Your task to perform on an android device: choose inbox layout in the gmail app Image 0: 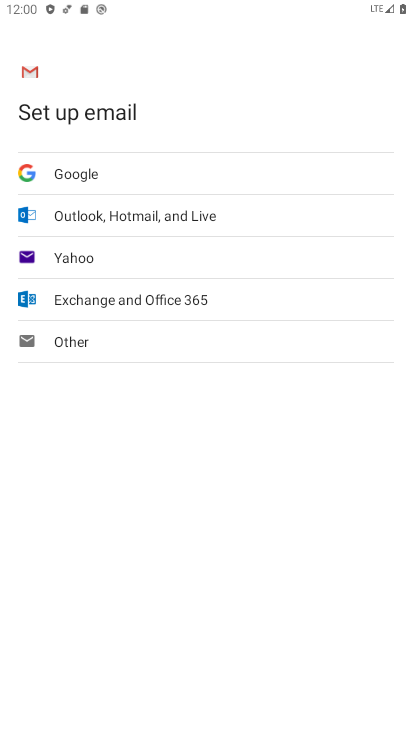
Step 0: press back button
Your task to perform on an android device: choose inbox layout in the gmail app Image 1: 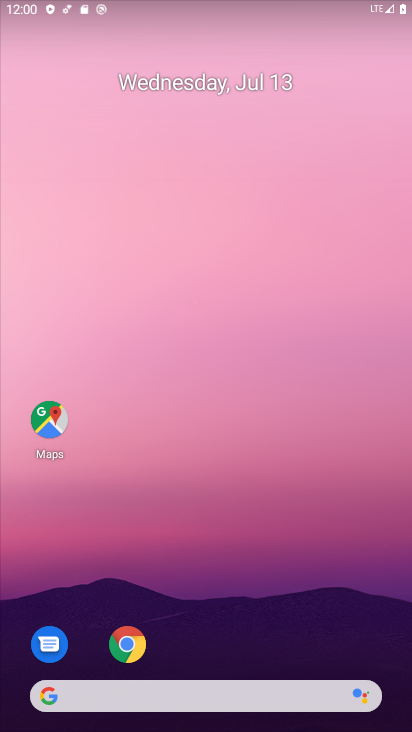
Step 1: drag from (218, 647) to (269, 123)
Your task to perform on an android device: choose inbox layout in the gmail app Image 2: 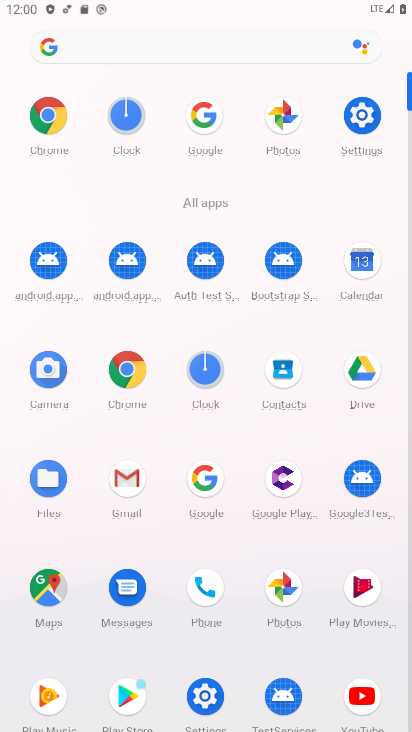
Step 2: click (130, 468)
Your task to perform on an android device: choose inbox layout in the gmail app Image 3: 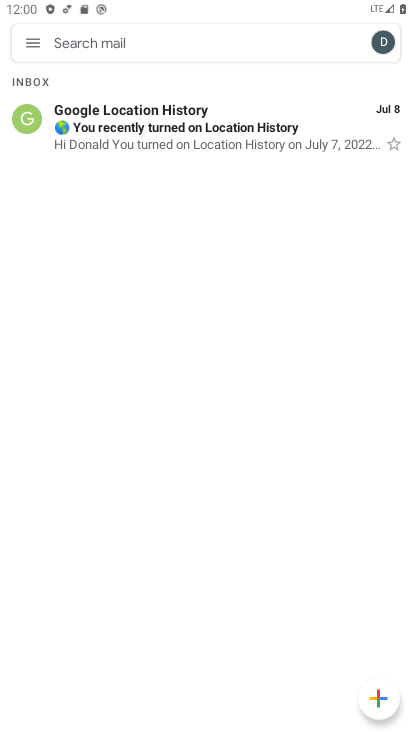
Step 3: click (25, 42)
Your task to perform on an android device: choose inbox layout in the gmail app Image 4: 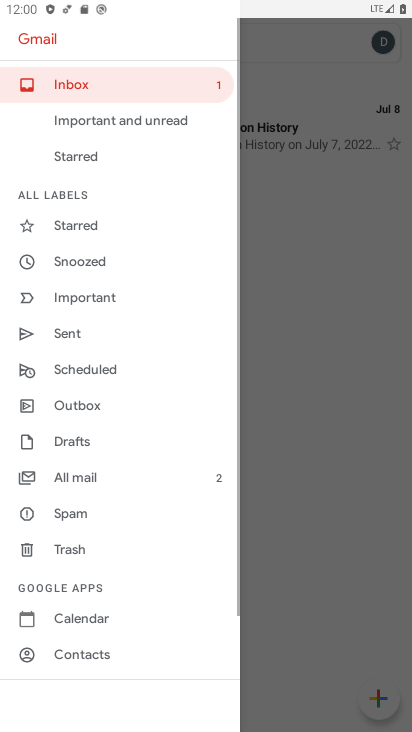
Step 4: drag from (92, 400) to (109, 183)
Your task to perform on an android device: choose inbox layout in the gmail app Image 5: 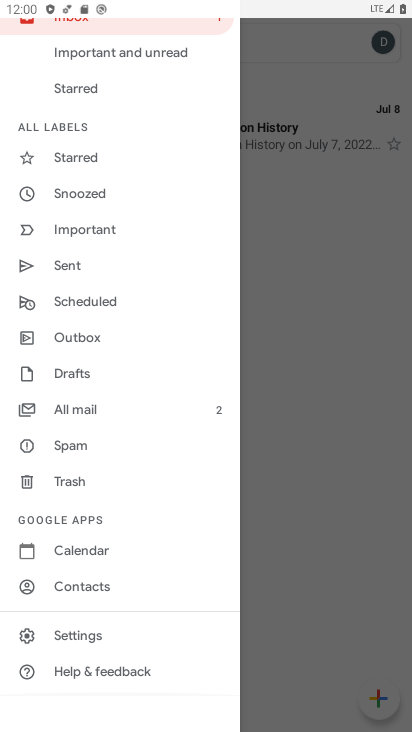
Step 5: click (84, 634)
Your task to perform on an android device: choose inbox layout in the gmail app Image 6: 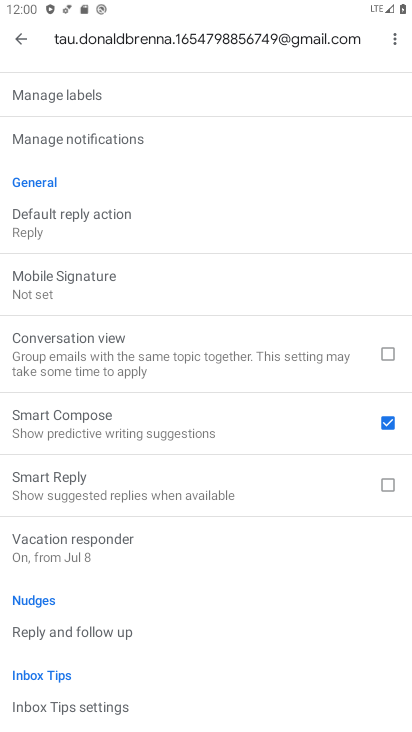
Step 6: drag from (89, 676) to (109, 290)
Your task to perform on an android device: choose inbox layout in the gmail app Image 7: 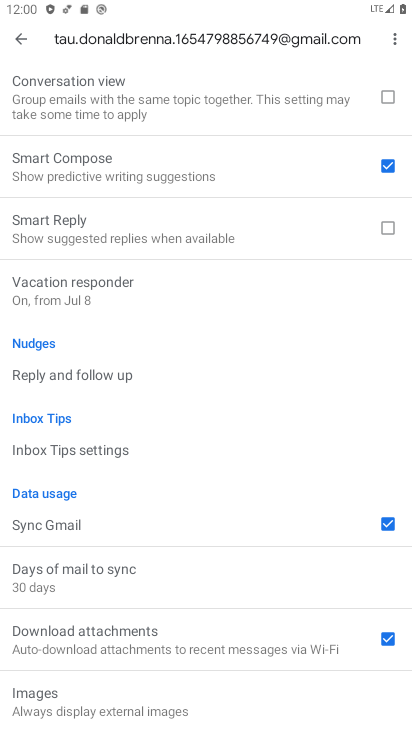
Step 7: drag from (110, 309) to (168, 651)
Your task to perform on an android device: choose inbox layout in the gmail app Image 8: 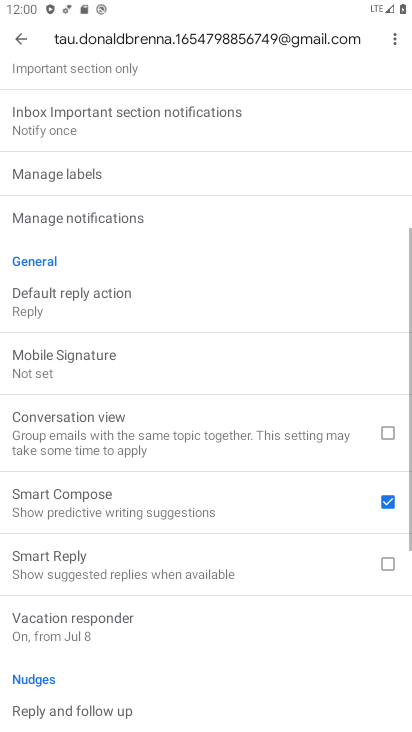
Step 8: drag from (175, 156) to (198, 398)
Your task to perform on an android device: choose inbox layout in the gmail app Image 9: 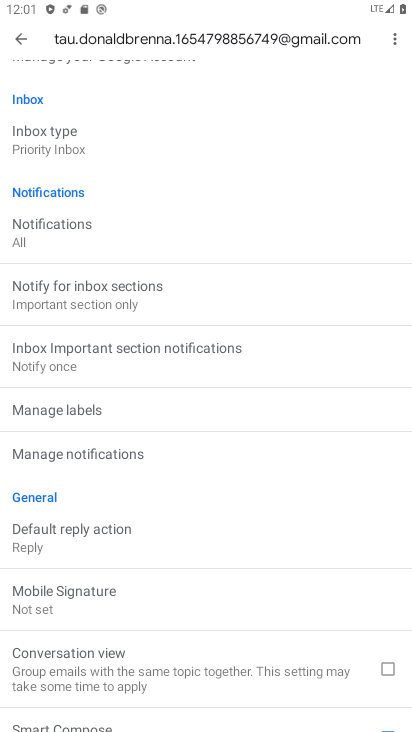
Step 9: click (65, 143)
Your task to perform on an android device: choose inbox layout in the gmail app Image 10: 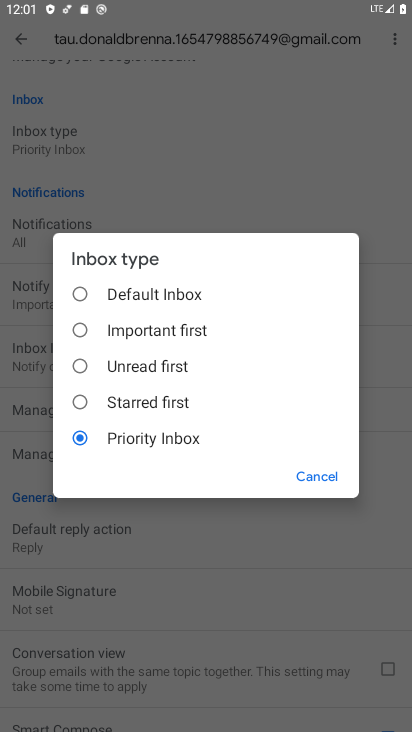
Step 10: click (83, 293)
Your task to perform on an android device: choose inbox layout in the gmail app Image 11: 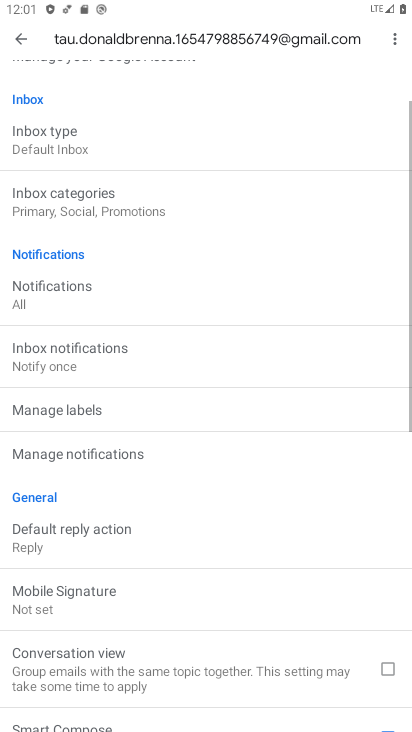
Step 11: task complete